Your task to perform on an android device: Open calendar and show me the fourth week of next month Image 0: 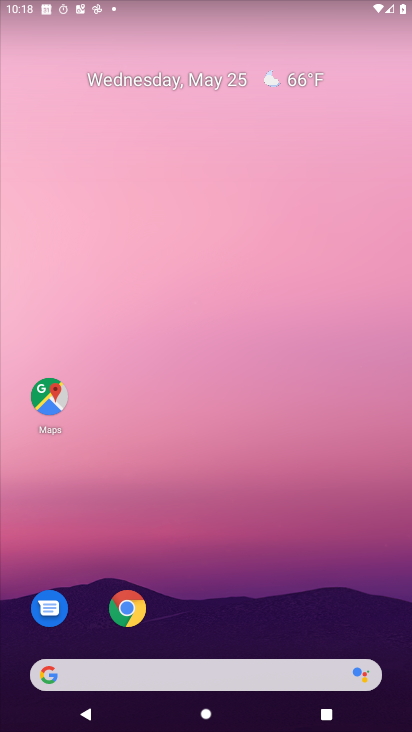
Step 0: drag from (224, 726) to (228, 102)
Your task to perform on an android device: Open calendar and show me the fourth week of next month Image 1: 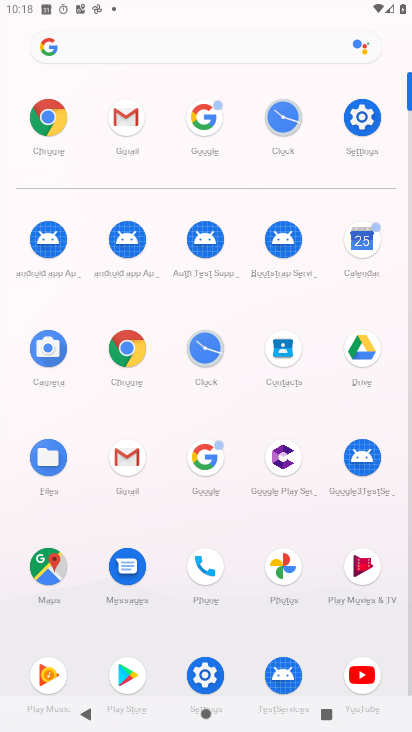
Step 1: click (361, 245)
Your task to perform on an android device: Open calendar and show me the fourth week of next month Image 2: 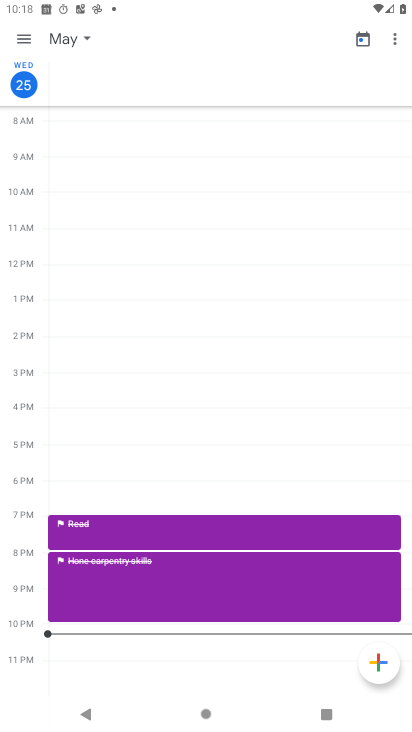
Step 2: click (85, 34)
Your task to perform on an android device: Open calendar and show me the fourth week of next month Image 3: 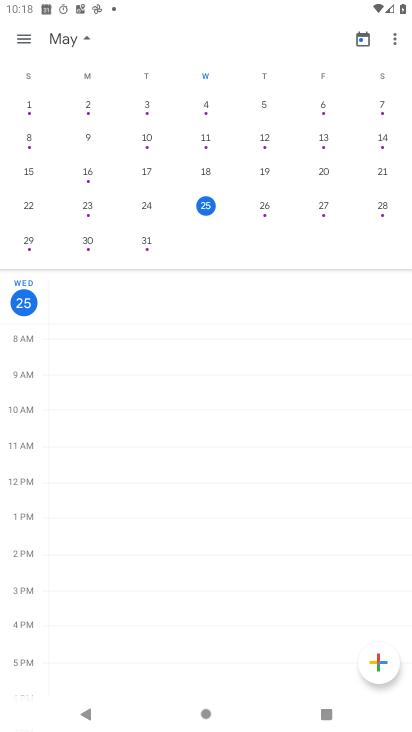
Step 3: drag from (393, 174) to (0, 161)
Your task to perform on an android device: Open calendar and show me the fourth week of next month Image 4: 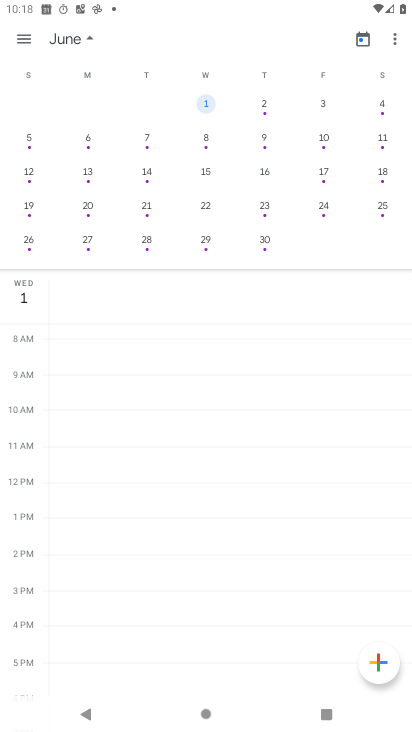
Step 4: click (85, 239)
Your task to perform on an android device: Open calendar and show me the fourth week of next month Image 5: 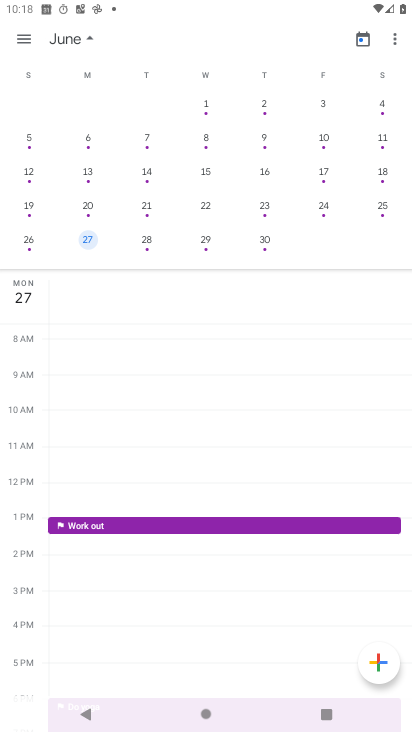
Step 5: click (22, 35)
Your task to perform on an android device: Open calendar and show me the fourth week of next month Image 6: 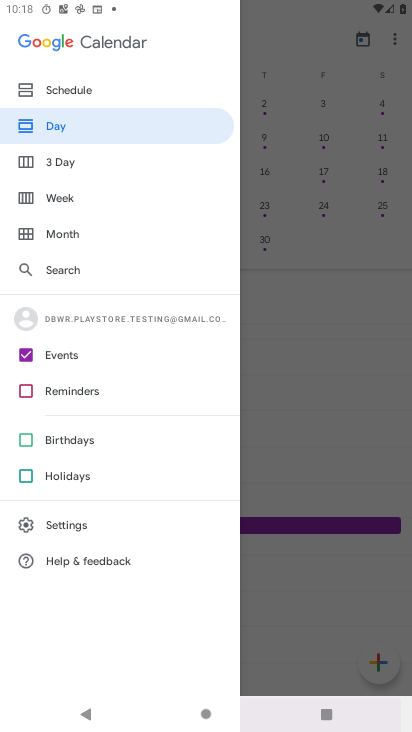
Step 6: click (67, 195)
Your task to perform on an android device: Open calendar and show me the fourth week of next month Image 7: 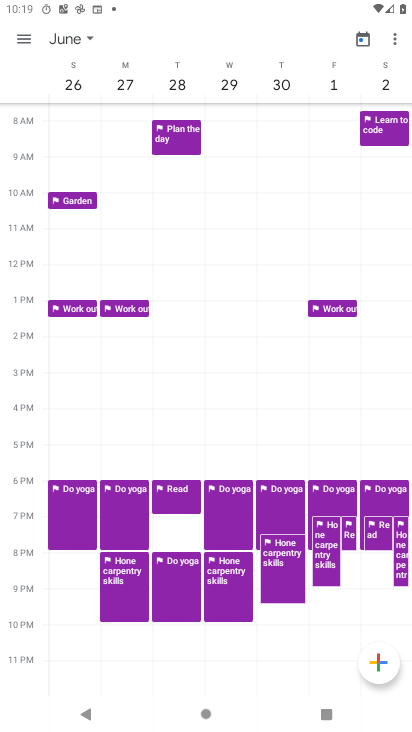
Step 7: task complete